Your task to perform on an android device: Go to ESPN.com Image 0: 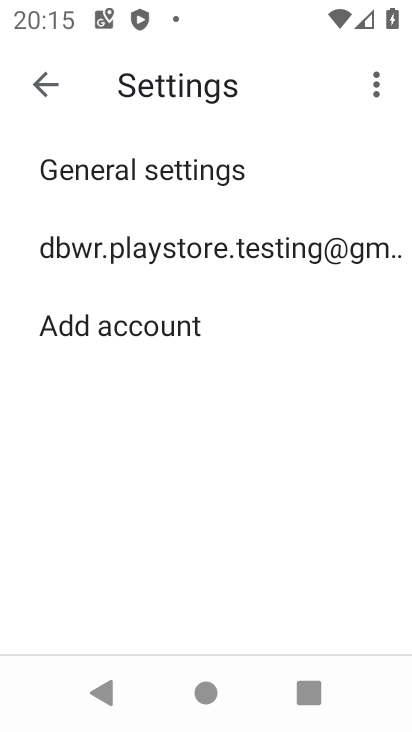
Step 0: press home button
Your task to perform on an android device: Go to ESPN.com Image 1: 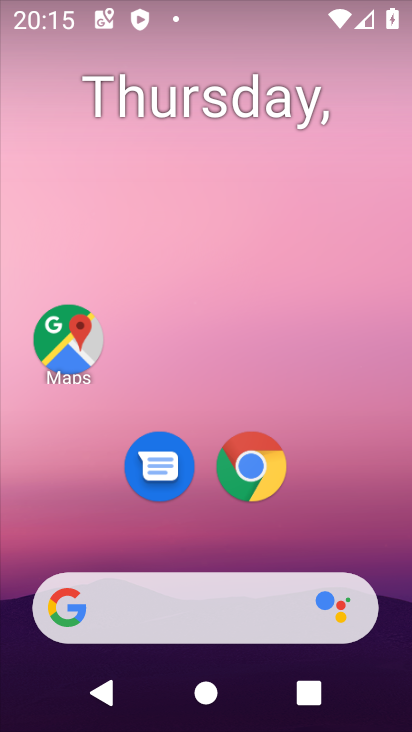
Step 1: click (152, 619)
Your task to perform on an android device: Go to ESPN.com Image 2: 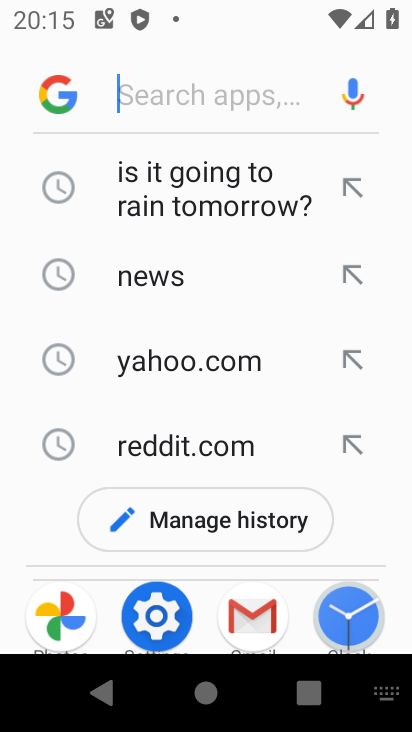
Step 2: type " ESPN.com"
Your task to perform on an android device: Go to ESPN.com Image 3: 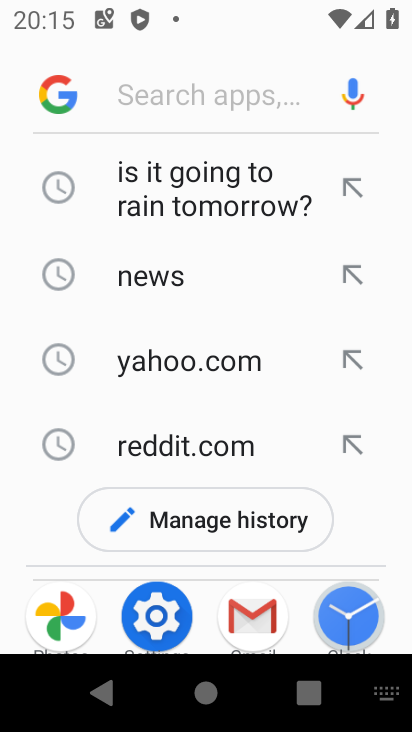
Step 3: click (162, 98)
Your task to perform on an android device: Go to ESPN.com Image 4: 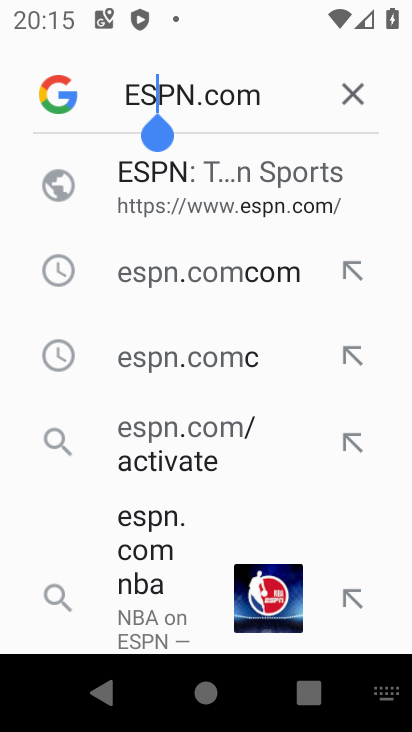
Step 4: click (192, 165)
Your task to perform on an android device: Go to ESPN.com Image 5: 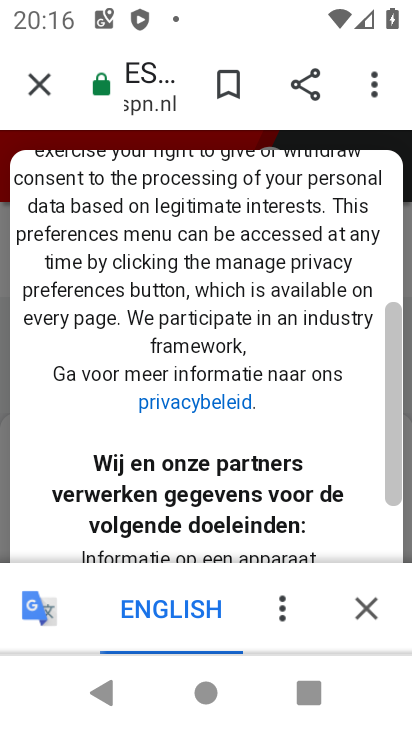
Step 5: click (370, 610)
Your task to perform on an android device: Go to ESPN.com Image 6: 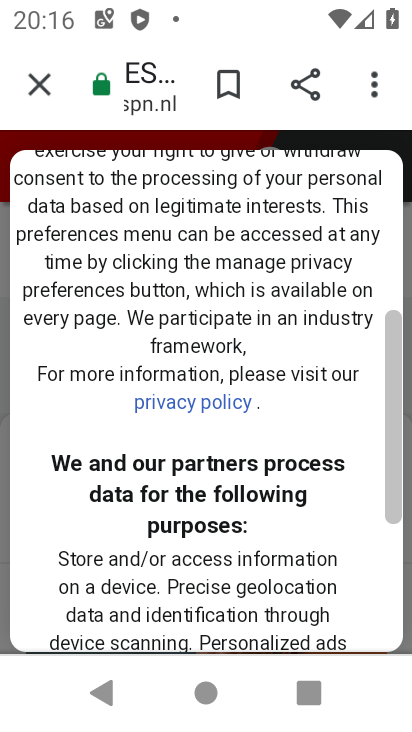
Step 6: drag from (396, 424) to (401, 262)
Your task to perform on an android device: Go to ESPN.com Image 7: 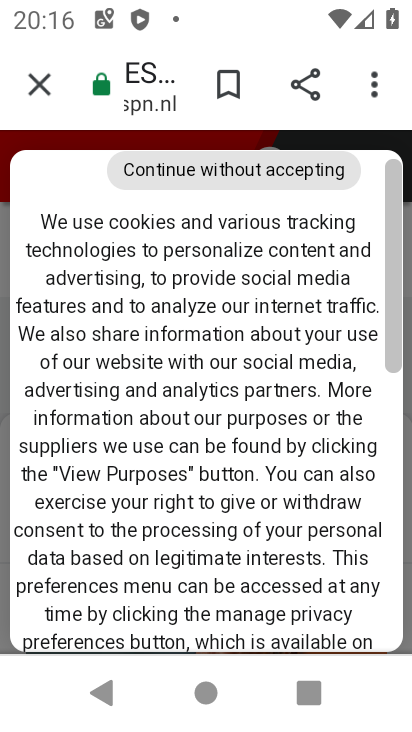
Step 7: drag from (329, 559) to (370, 47)
Your task to perform on an android device: Go to ESPN.com Image 8: 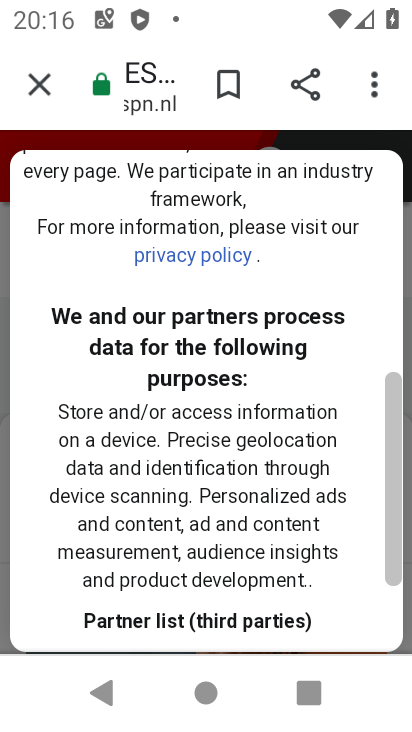
Step 8: drag from (253, 558) to (257, 324)
Your task to perform on an android device: Go to ESPN.com Image 9: 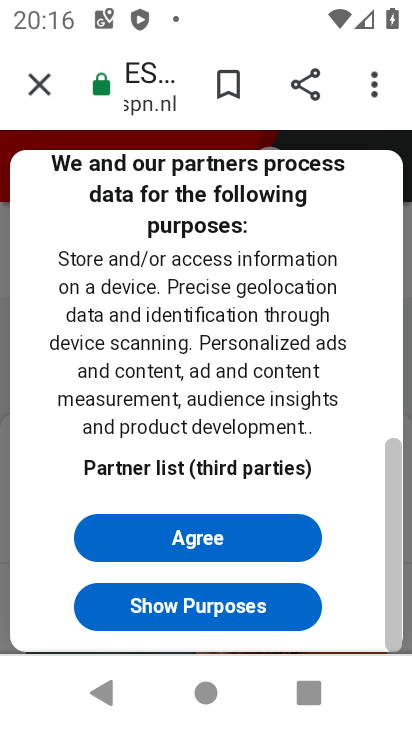
Step 9: click (240, 534)
Your task to perform on an android device: Go to ESPN.com Image 10: 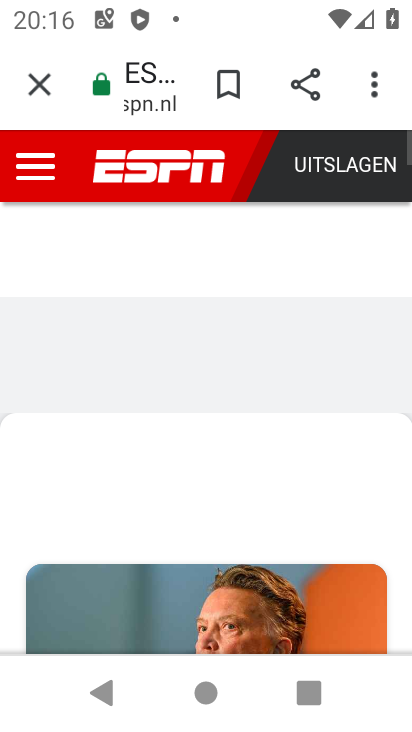
Step 10: task complete